Your task to perform on an android device: View the shopping cart on newegg.com. Image 0: 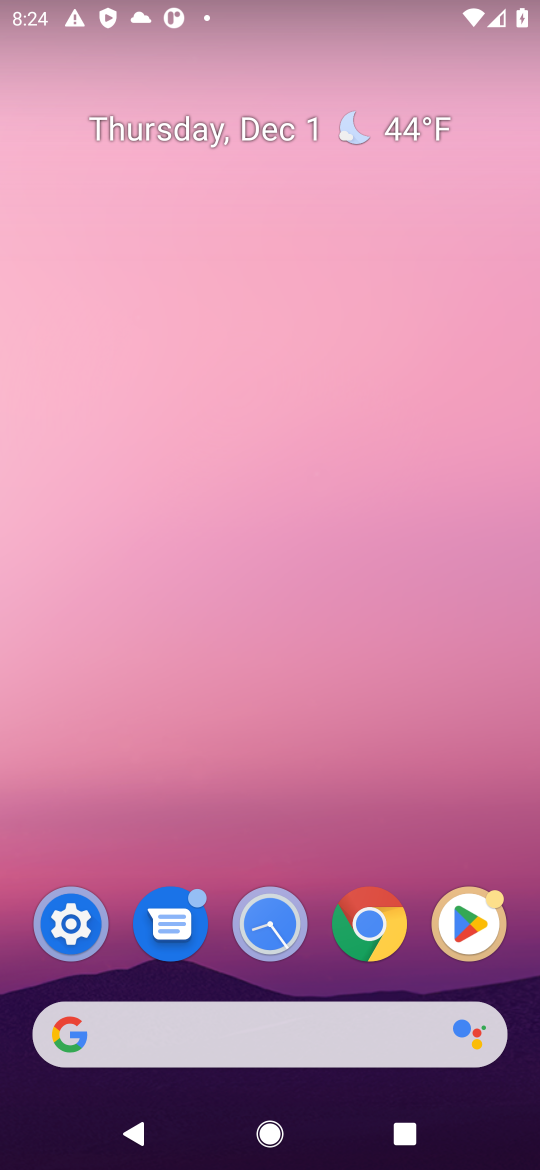
Step 0: click (287, 1052)
Your task to perform on an android device: View the shopping cart on newegg.com. Image 1: 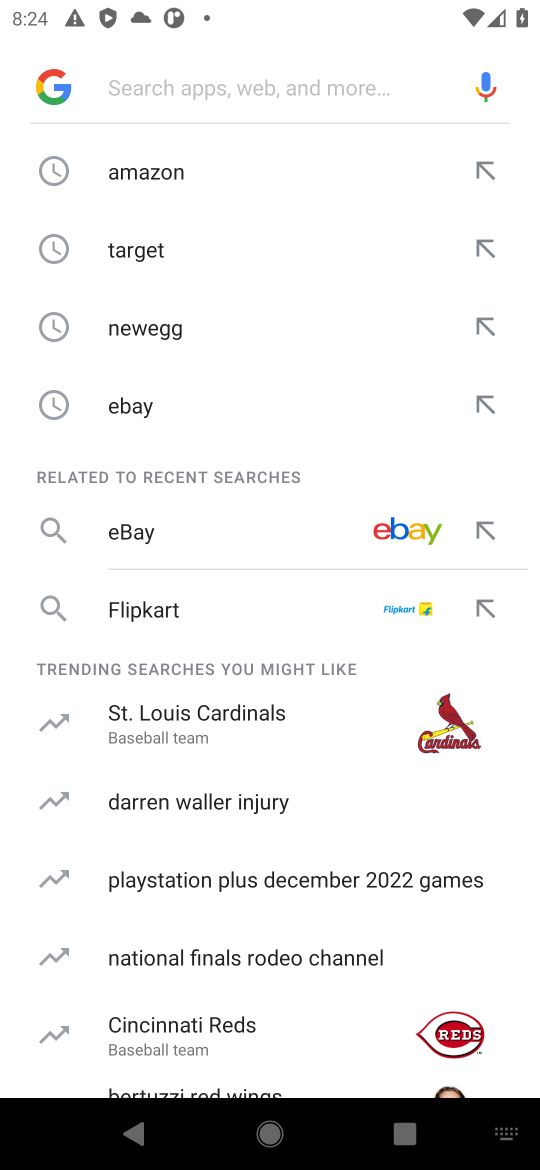
Step 1: click (119, 303)
Your task to perform on an android device: View the shopping cart on newegg.com. Image 2: 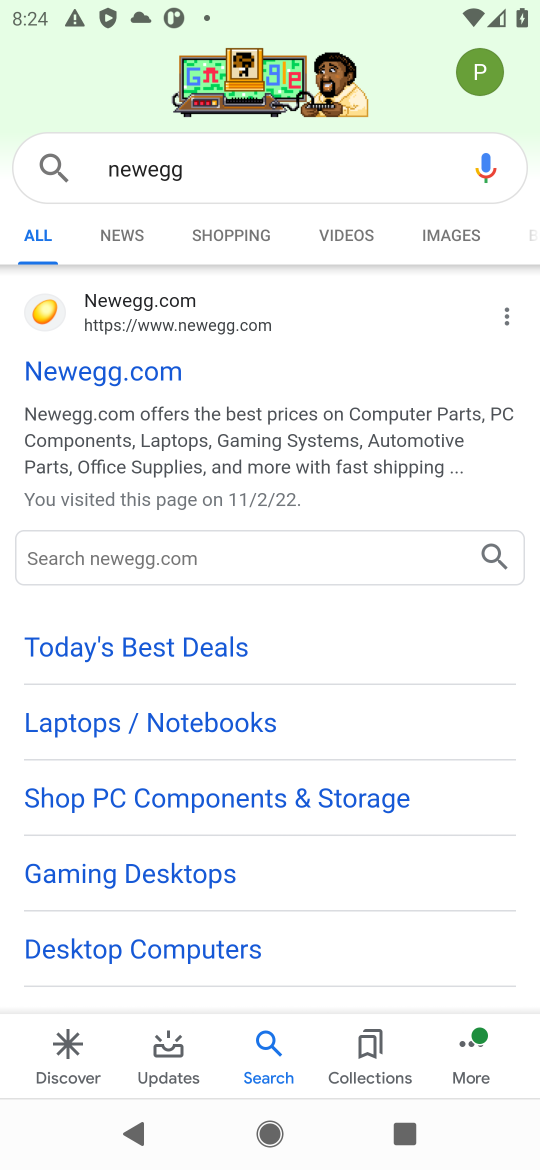
Step 2: click (119, 368)
Your task to perform on an android device: View the shopping cart on newegg.com. Image 3: 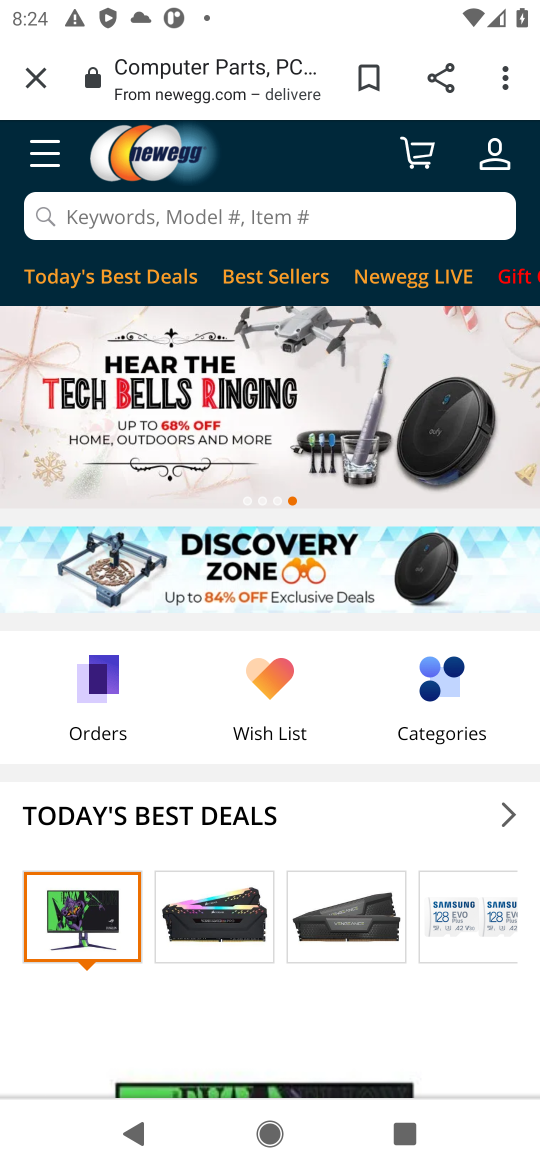
Step 3: click (136, 223)
Your task to perform on an android device: View the shopping cart on newegg.com. Image 4: 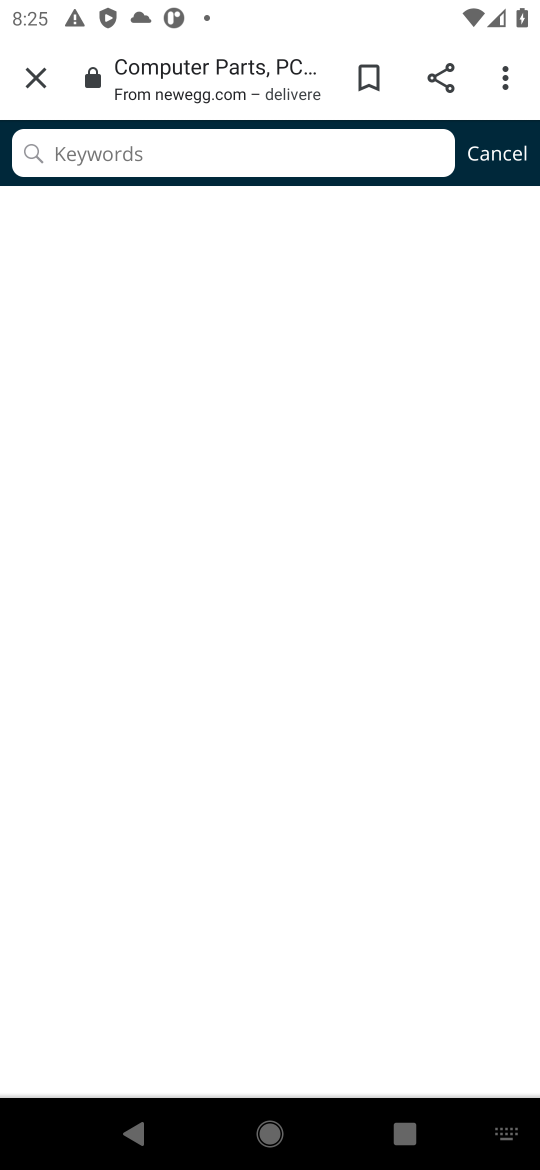
Step 4: task complete